Your task to perform on an android device: Is it going to rain today? Image 0: 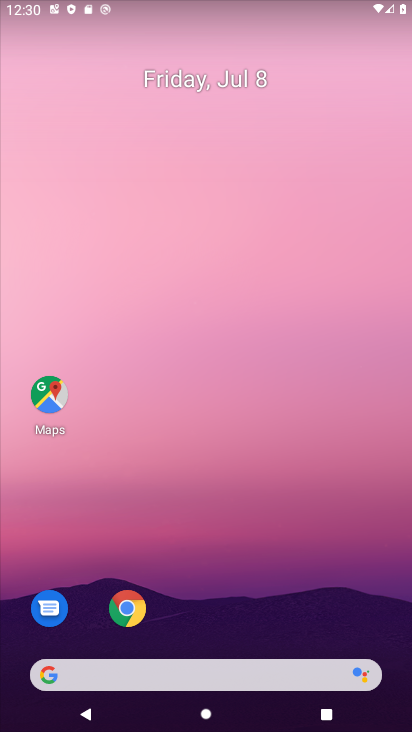
Step 0: drag from (261, 633) to (160, 32)
Your task to perform on an android device: Is it going to rain today? Image 1: 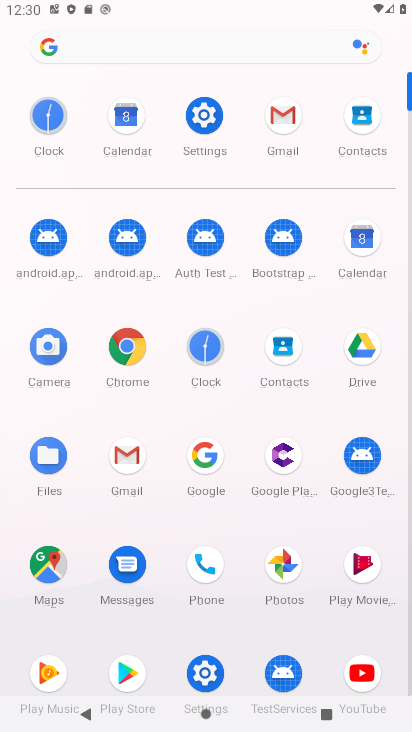
Step 1: click (182, 53)
Your task to perform on an android device: Is it going to rain today? Image 2: 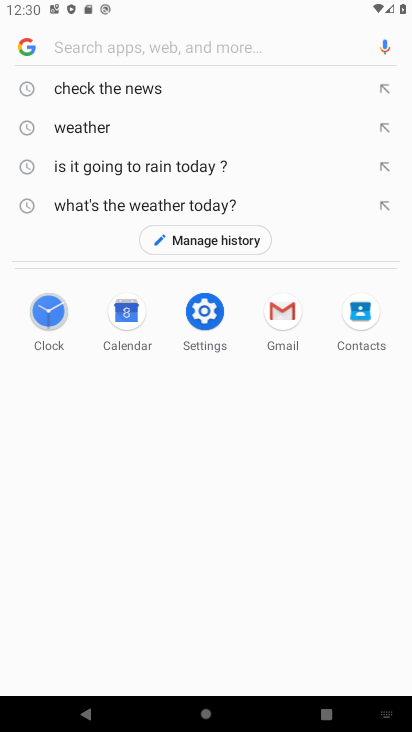
Step 2: click (205, 130)
Your task to perform on an android device: Is it going to rain today? Image 3: 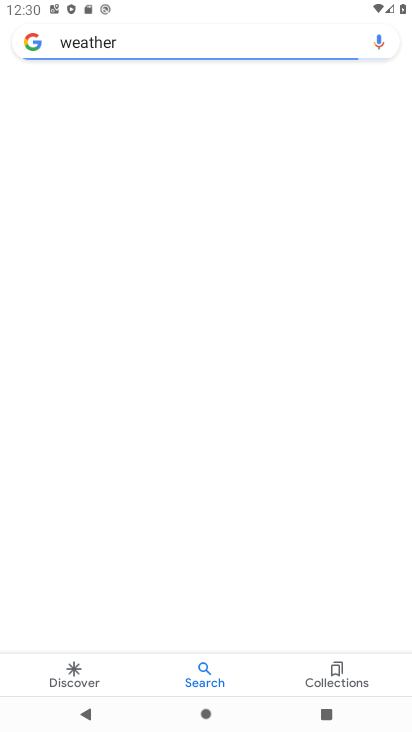
Step 3: task complete